Your task to perform on an android device: Go to network settings Image 0: 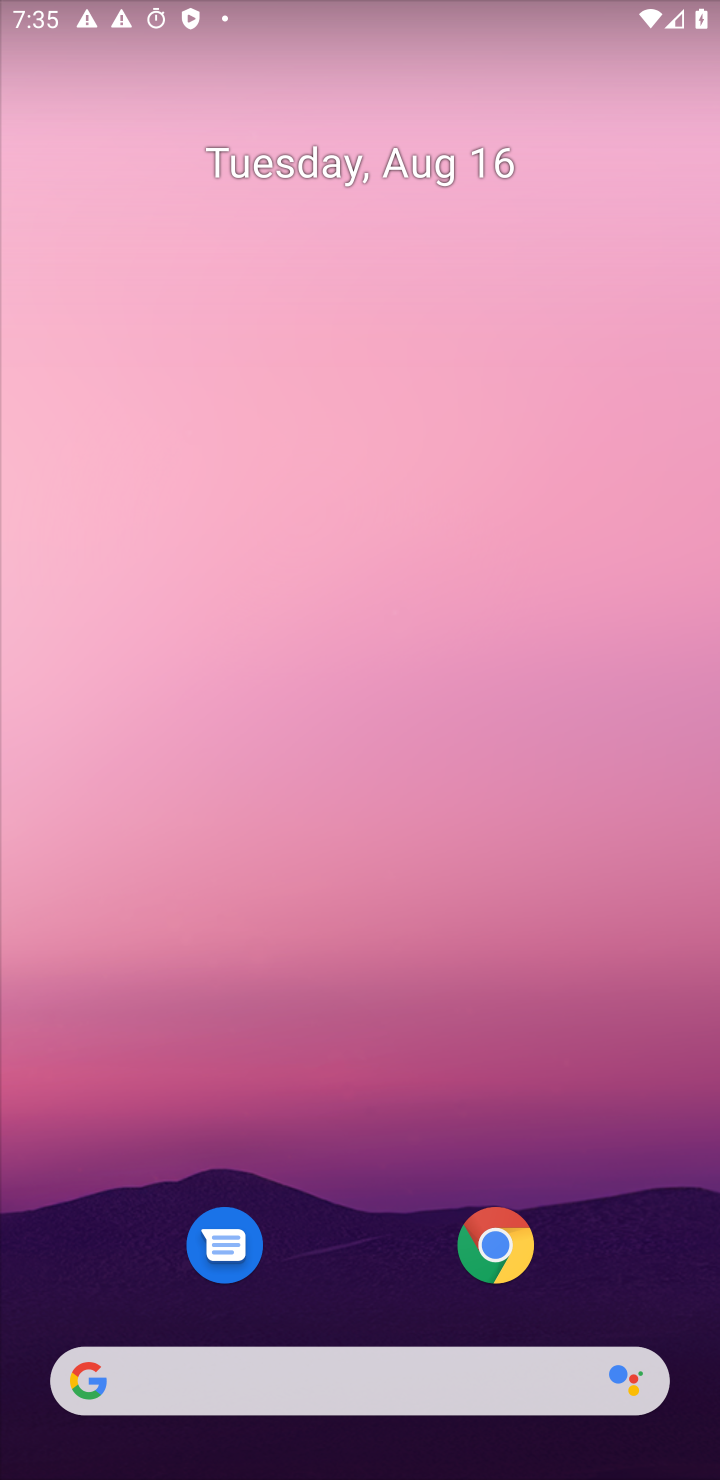
Step 0: press home button
Your task to perform on an android device: Go to network settings Image 1: 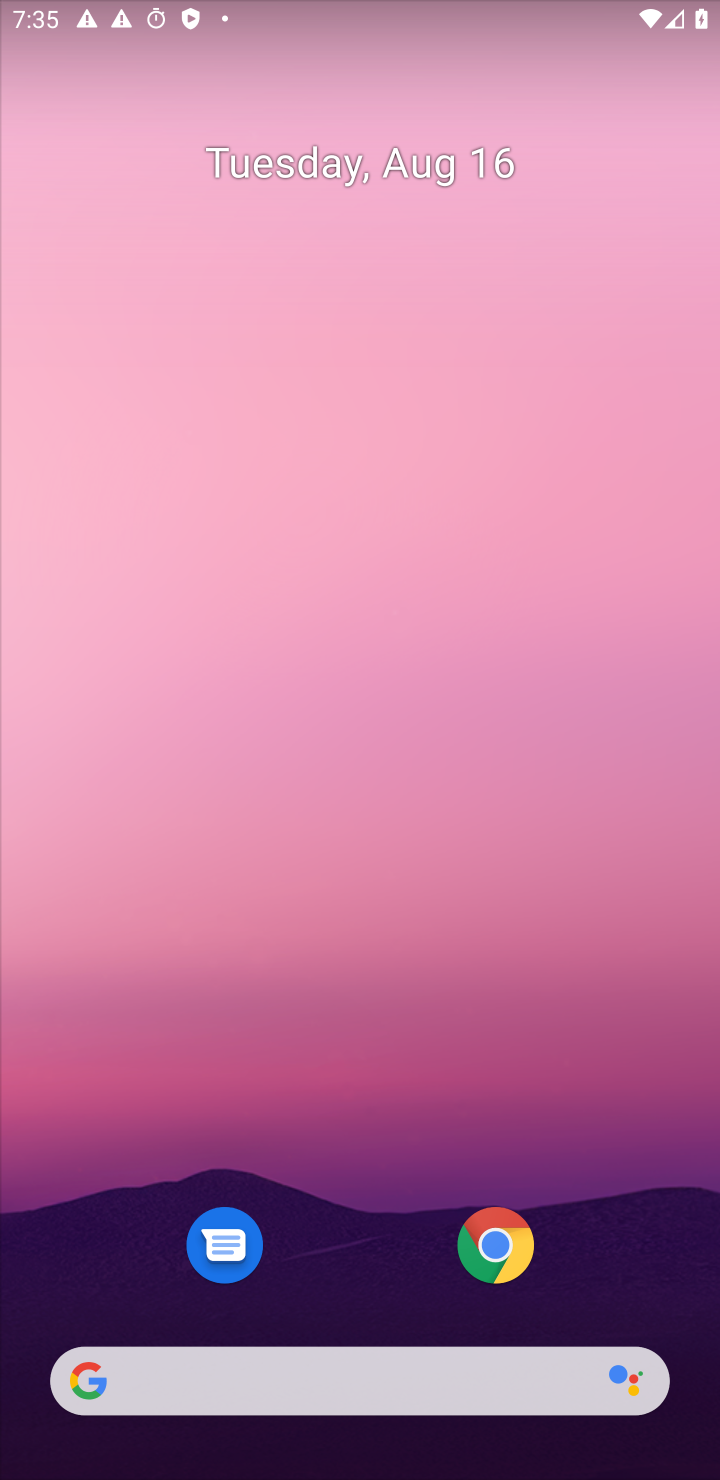
Step 1: click (442, 215)
Your task to perform on an android device: Go to network settings Image 2: 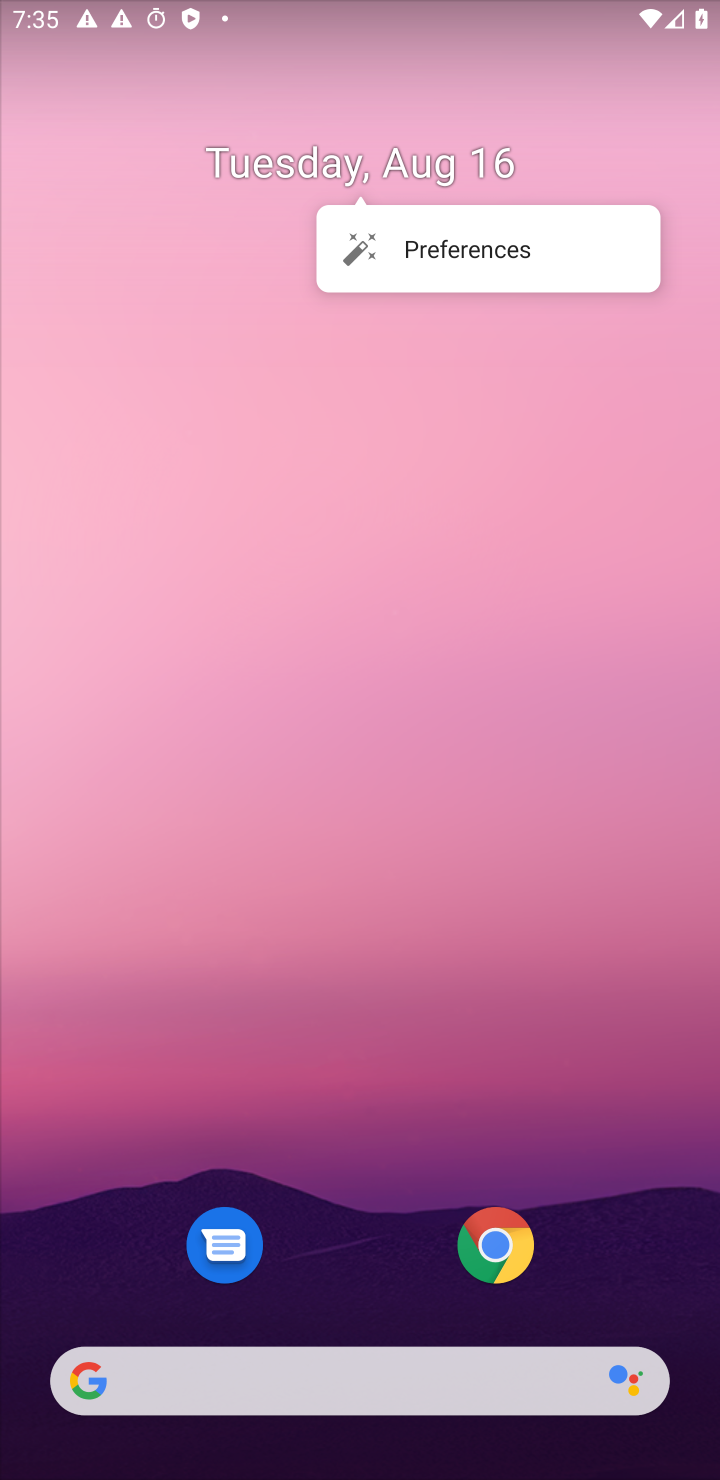
Step 2: drag from (342, 872) to (437, 199)
Your task to perform on an android device: Go to network settings Image 3: 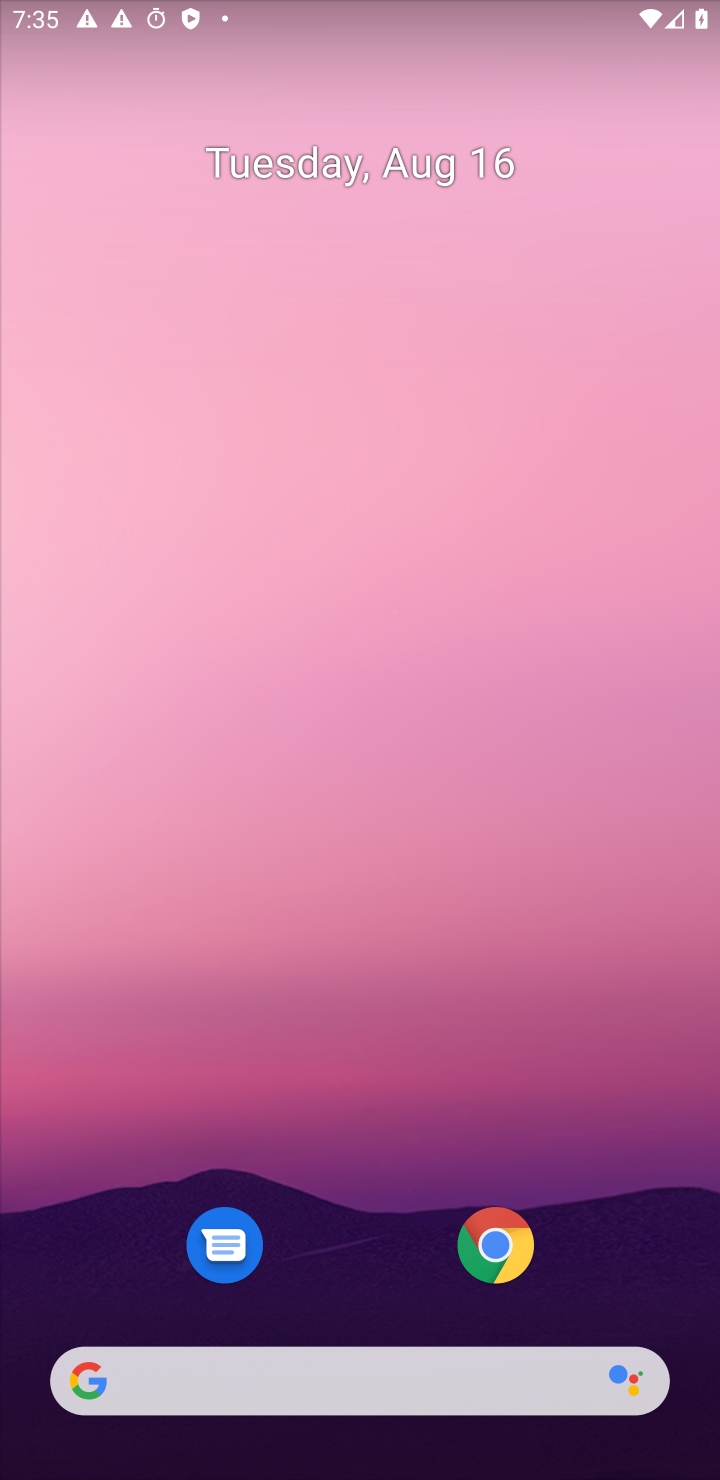
Step 3: drag from (365, 1164) to (333, 202)
Your task to perform on an android device: Go to network settings Image 4: 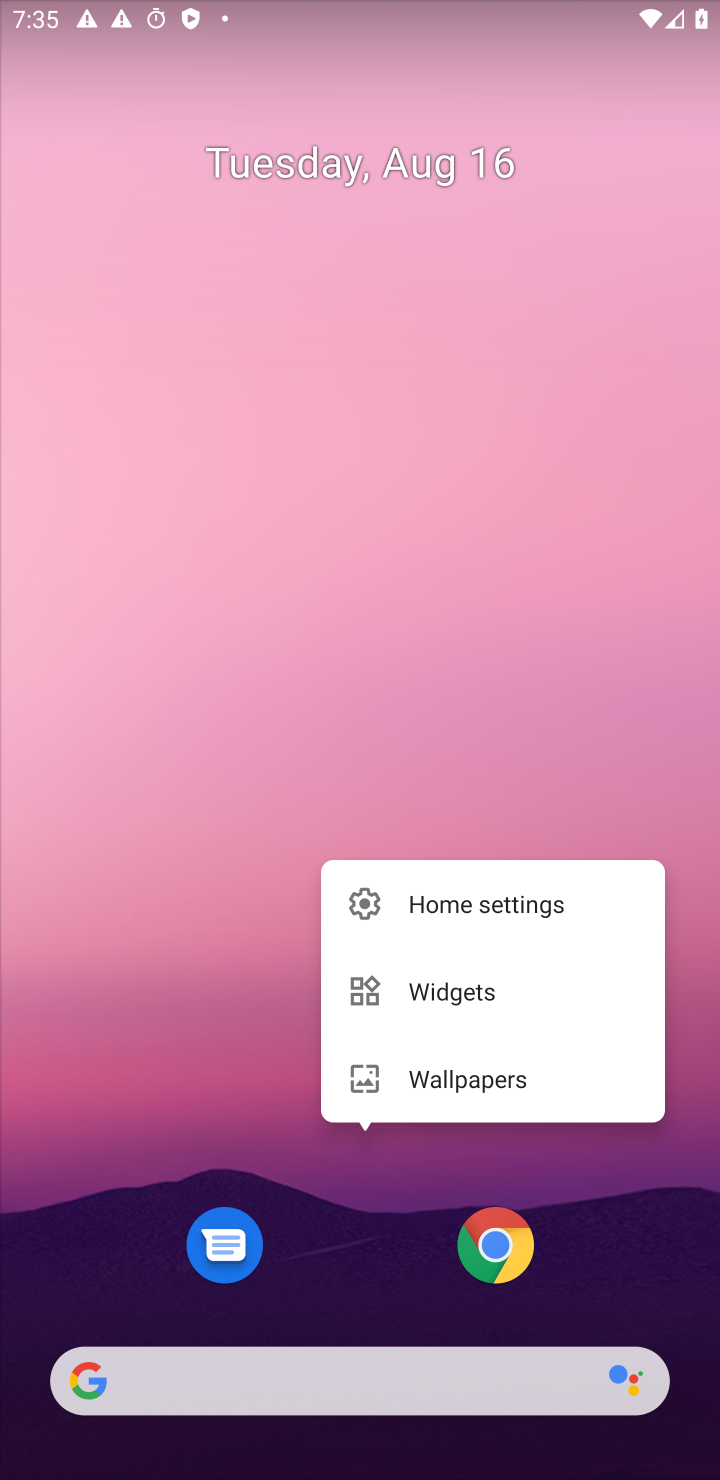
Step 4: press home button
Your task to perform on an android device: Go to network settings Image 5: 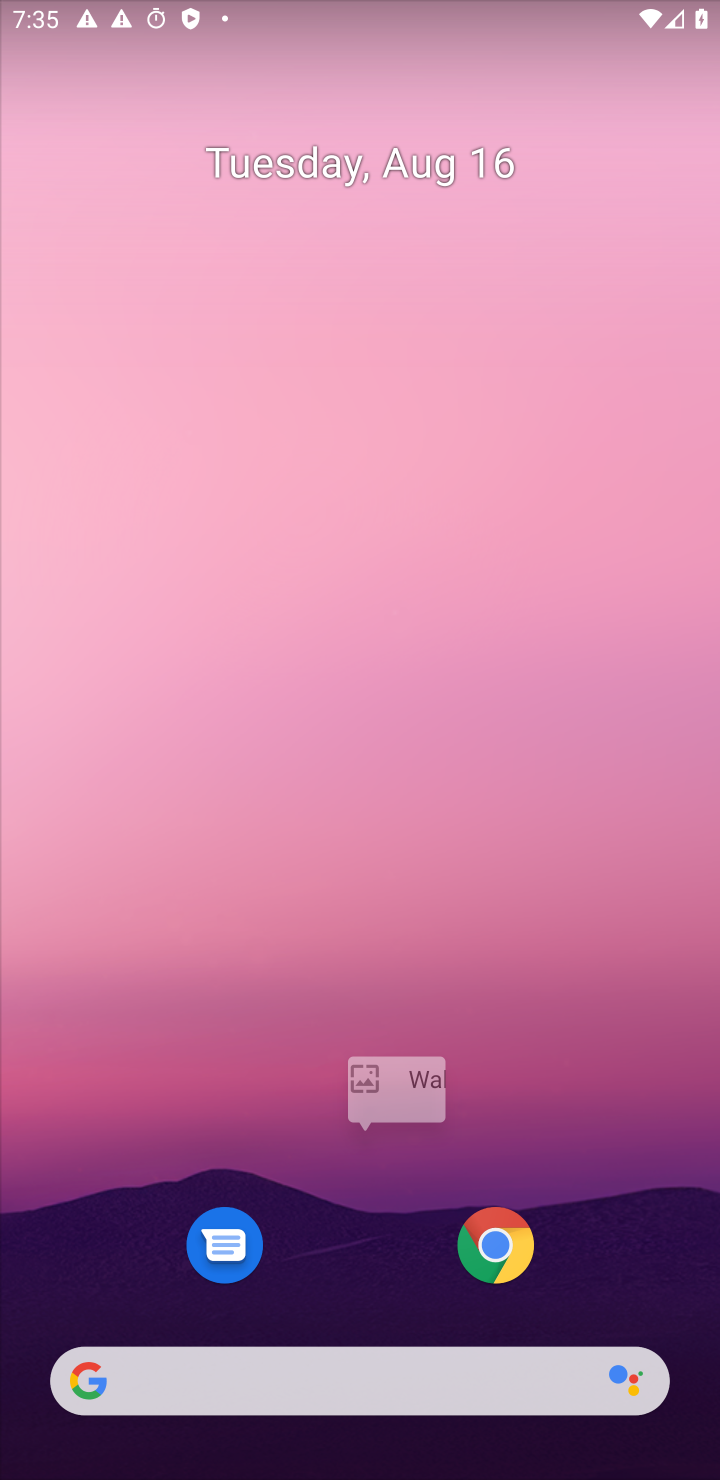
Step 5: click (298, 764)
Your task to perform on an android device: Go to network settings Image 6: 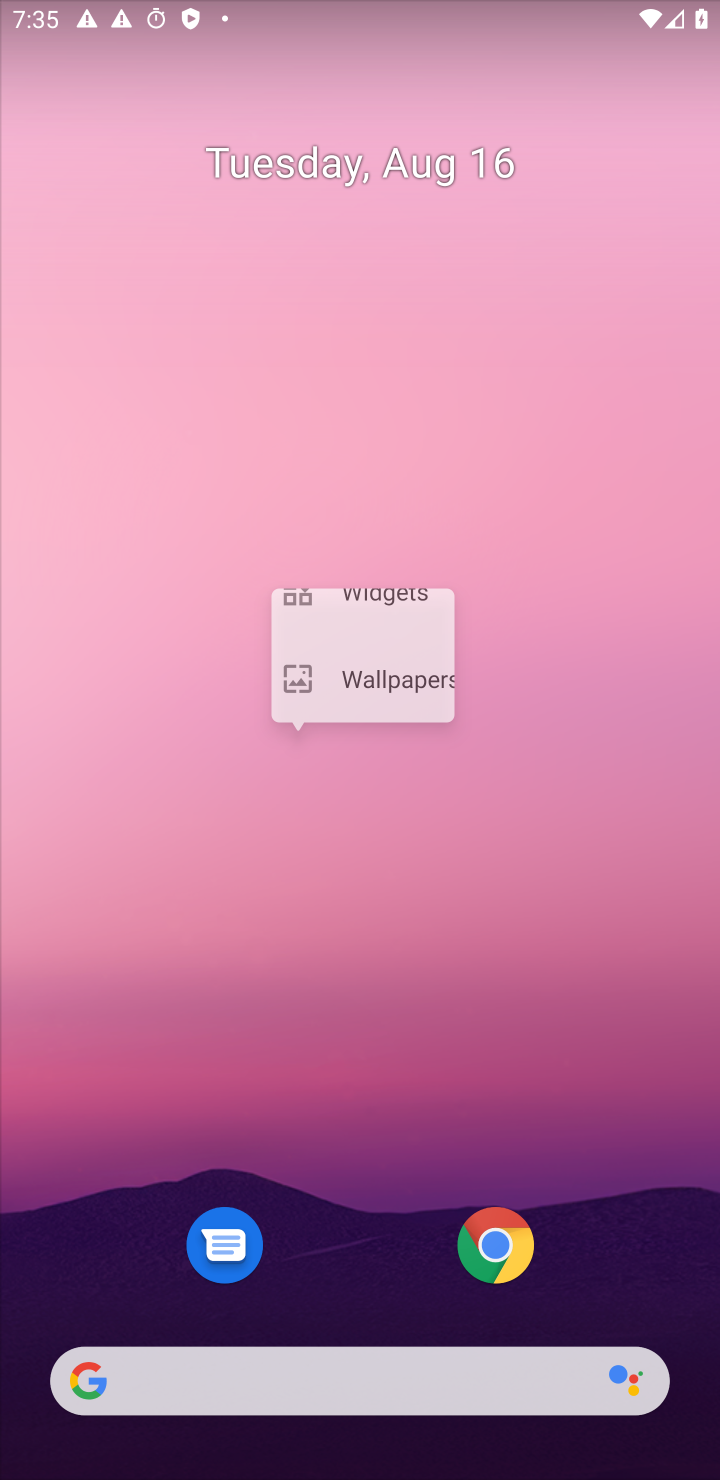
Step 6: drag from (341, 1224) to (301, 90)
Your task to perform on an android device: Go to network settings Image 7: 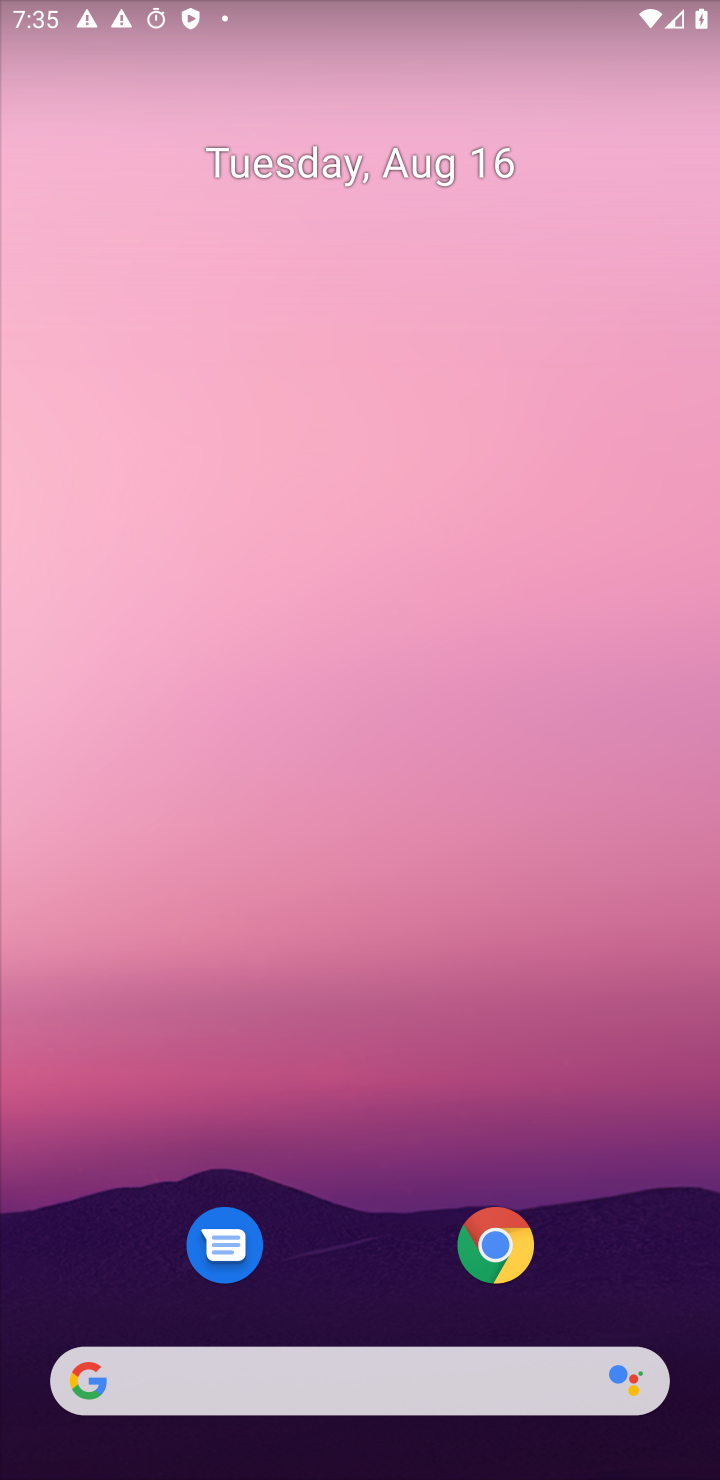
Step 7: drag from (343, 1291) to (494, 9)
Your task to perform on an android device: Go to network settings Image 8: 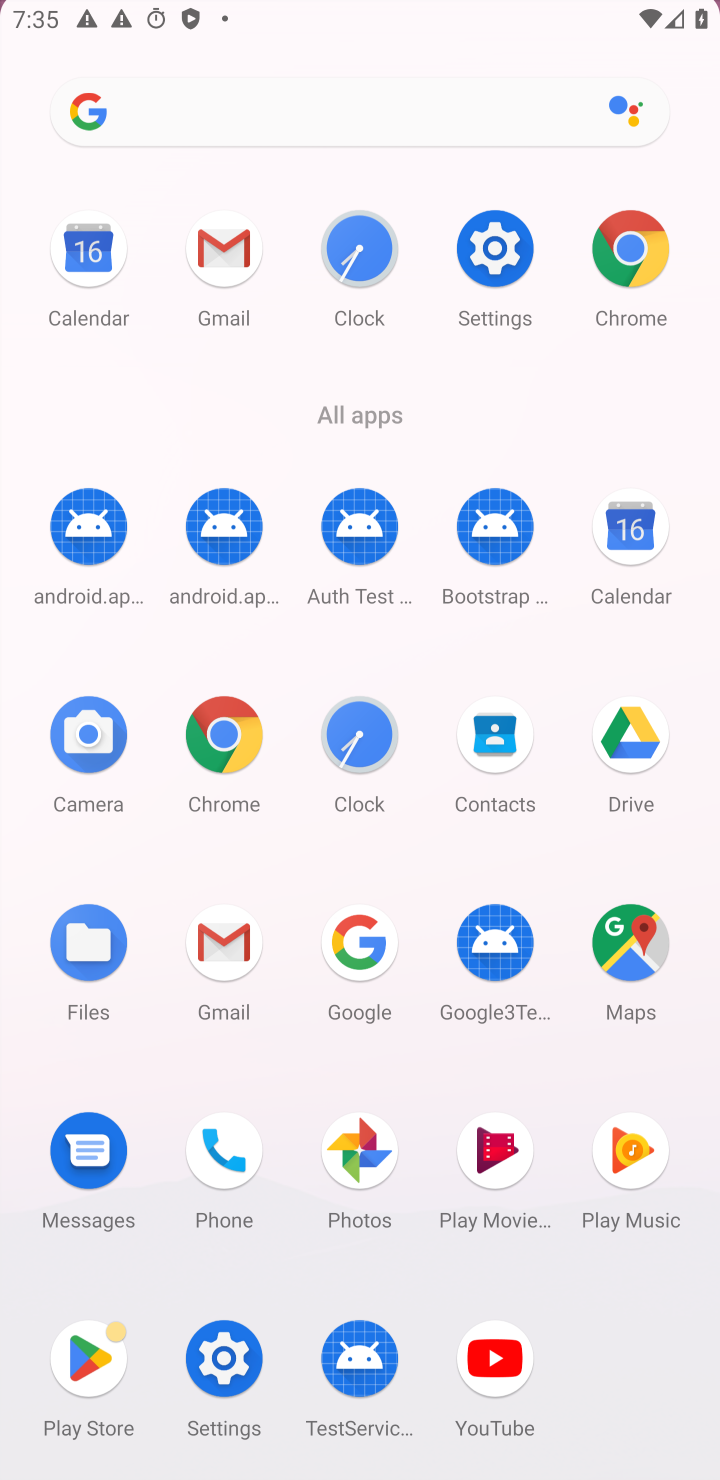
Step 8: click (484, 263)
Your task to perform on an android device: Go to network settings Image 9: 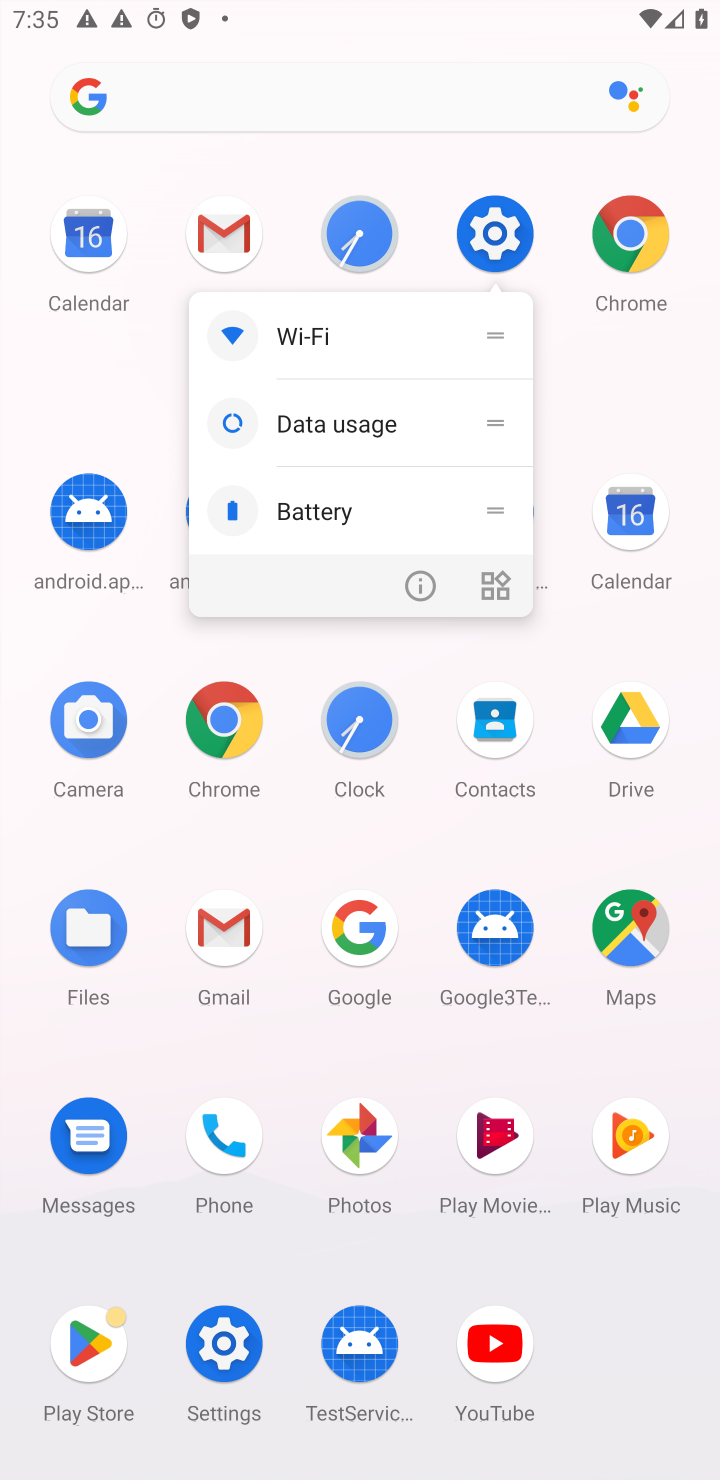
Step 9: click (476, 231)
Your task to perform on an android device: Go to network settings Image 10: 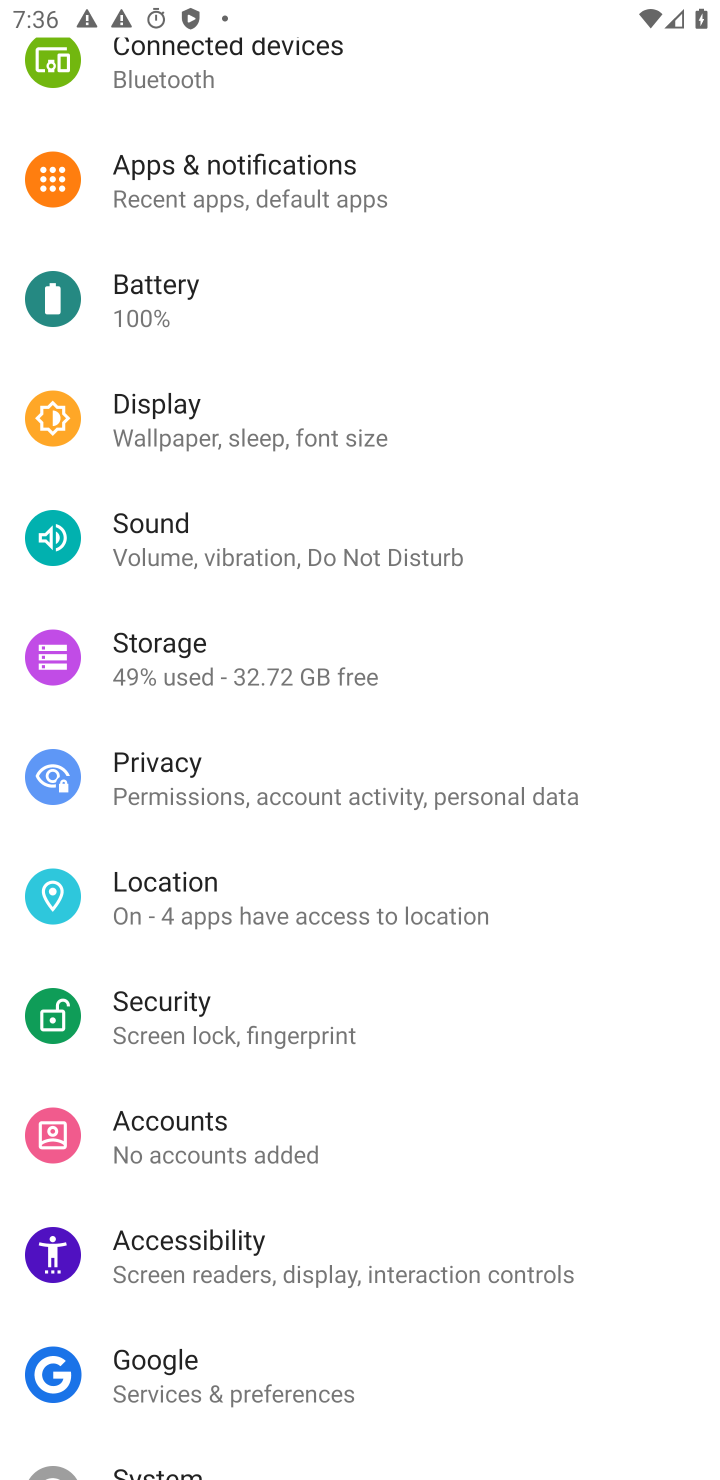
Step 10: drag from (145, 361) to (172, 1021)
Your task to perform on an android device: Go to network settings Image 11: 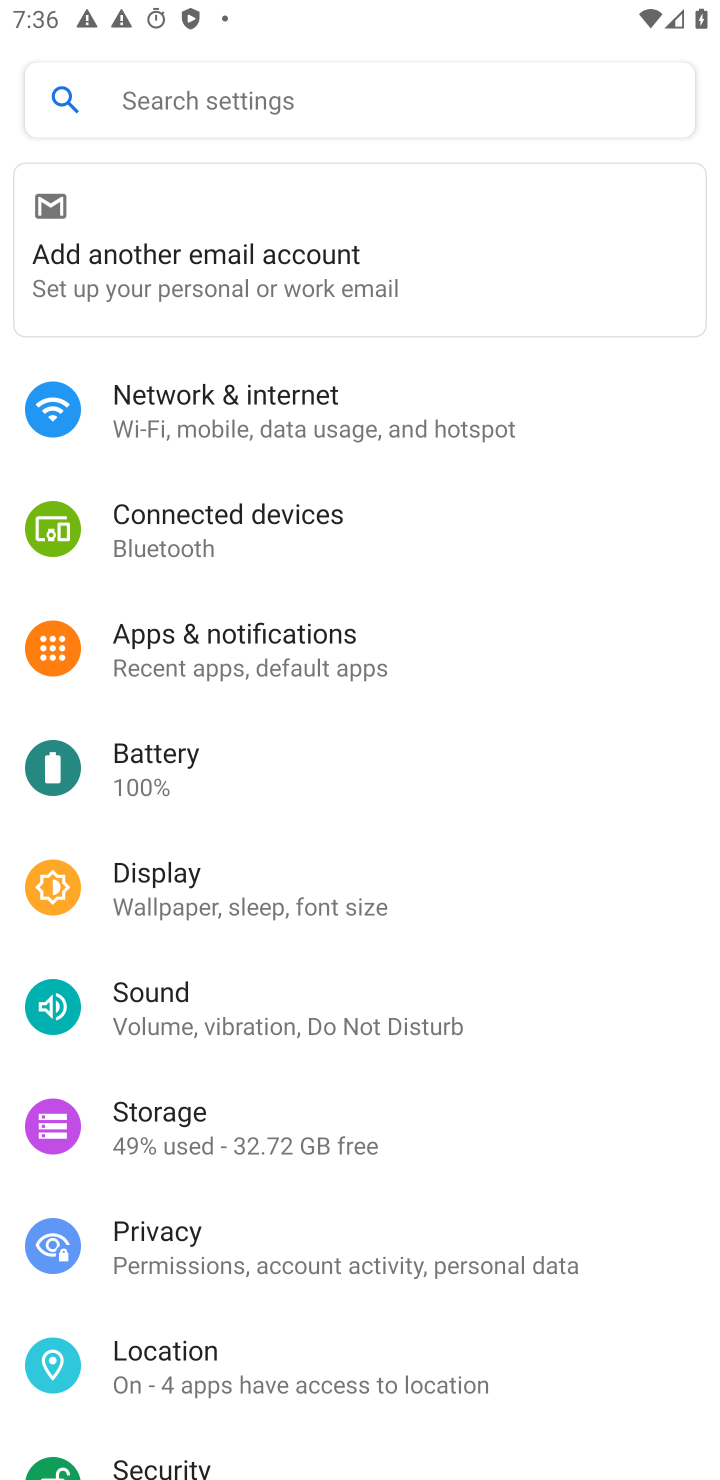
Step 11: click (184, 276)
Your task to perform on an android device: Go to network settings Image 12: 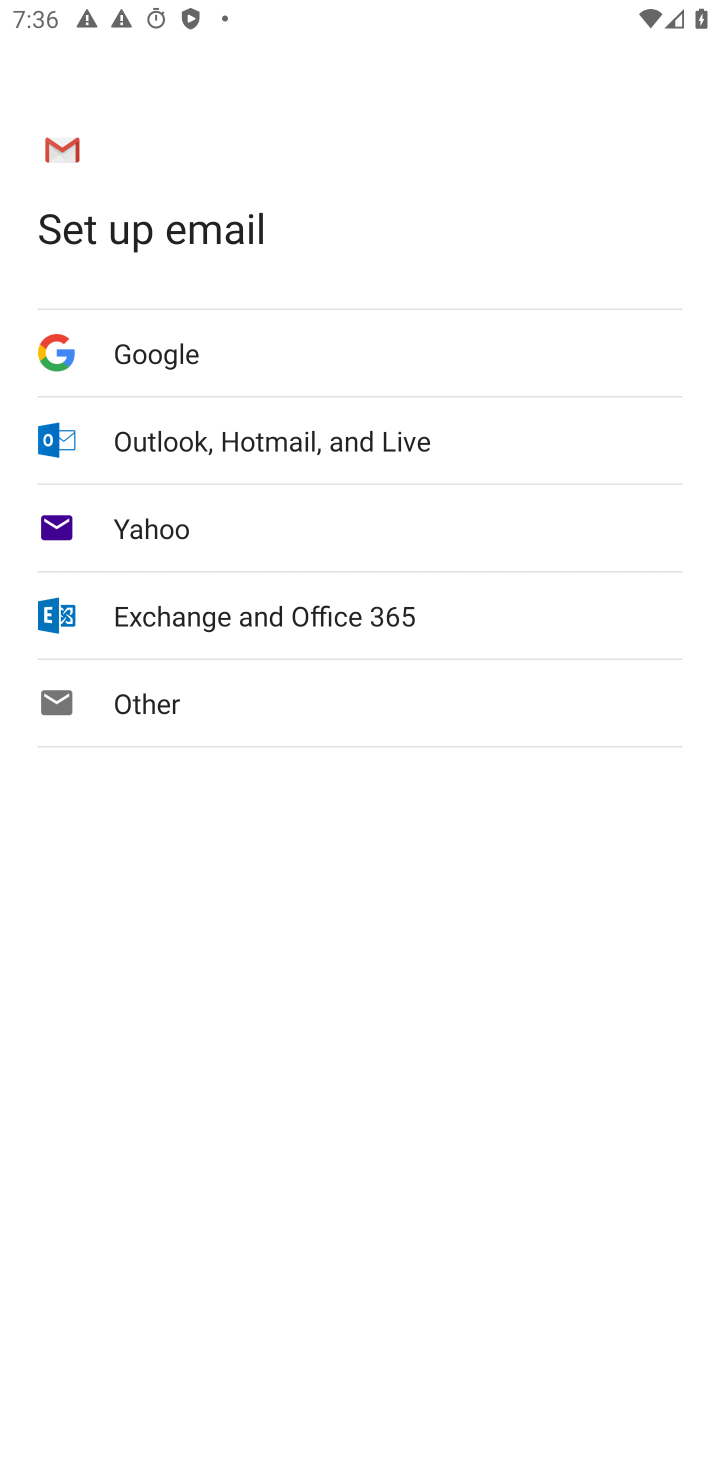
Step 12: press back button
Your task to perform on an android device: Go to network settings Image 13: 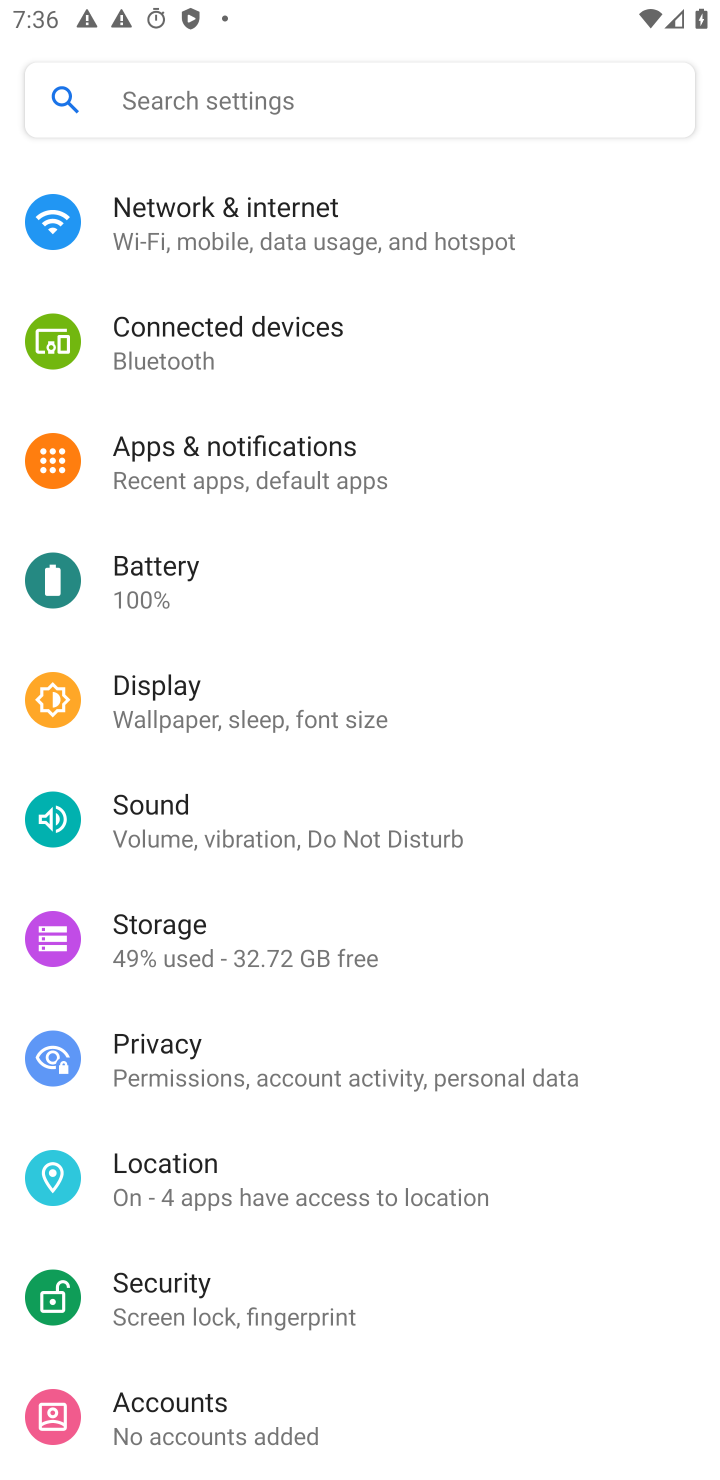
Step 13: click (290, 398)
Your task to perform on an android device: Go to network settings Image 14: 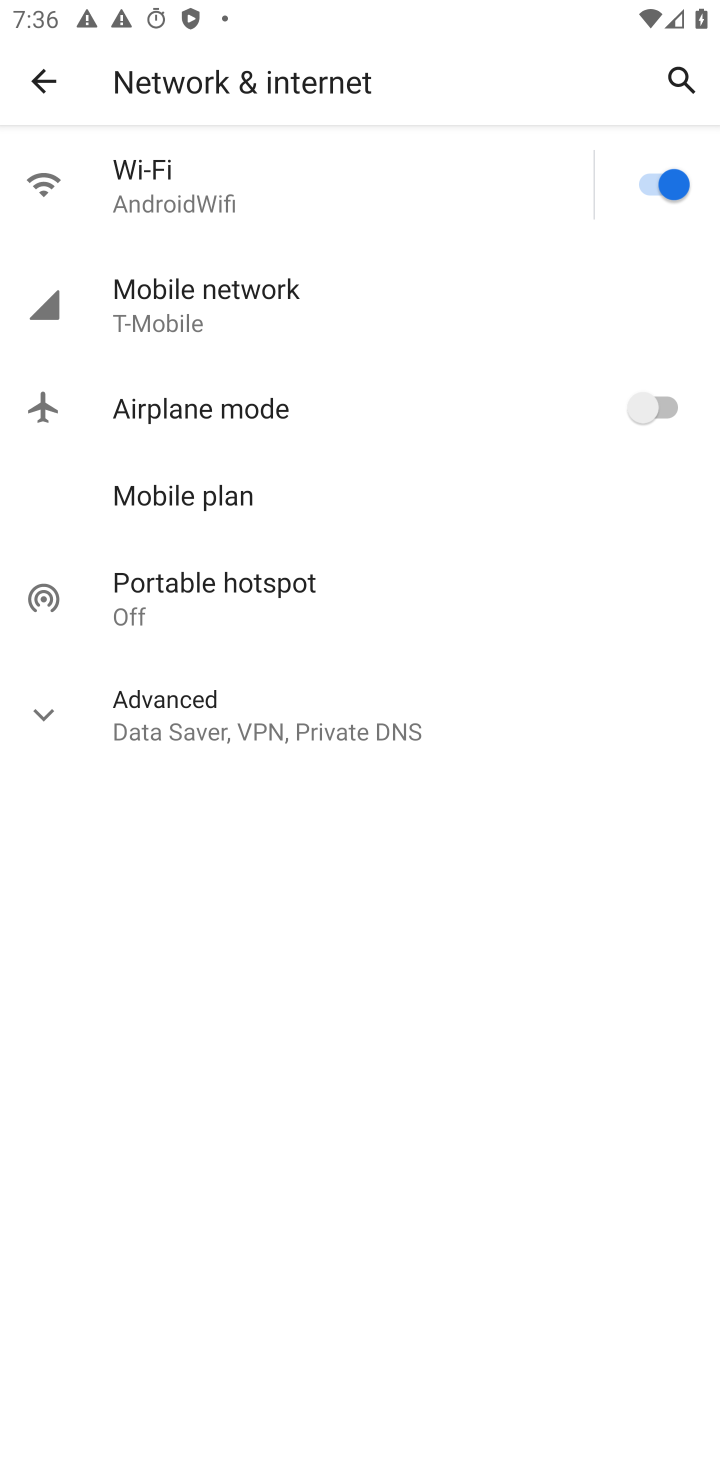
Step 14: task complete